Your task to perform on an android device: Open calendar and show me the second week of next month Image 0: 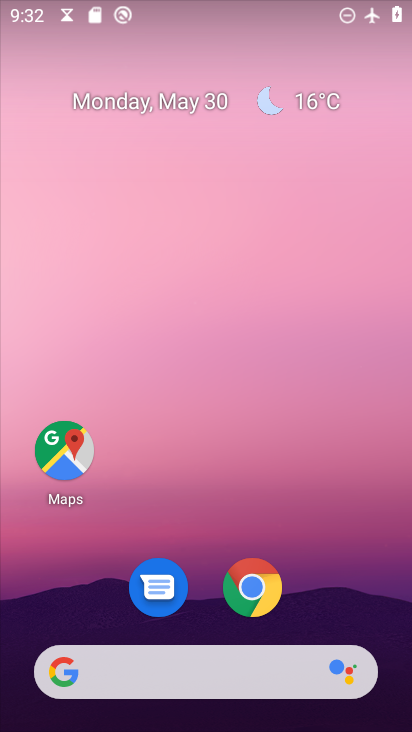
Step 0: drag from (155, 687) to (319, 164)
Your task to perform on an android device: Open calendar and show me the second week of next month Image 1: 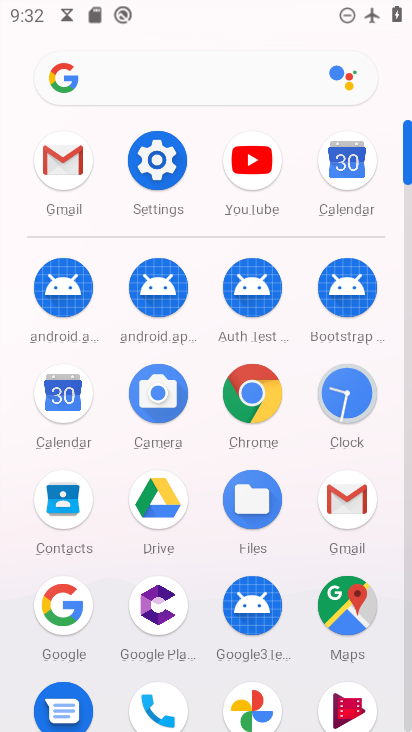
Step 1: click (68, 403)
Your task to perform on an android device: Open calendar and show me the second week of next month Image 2: 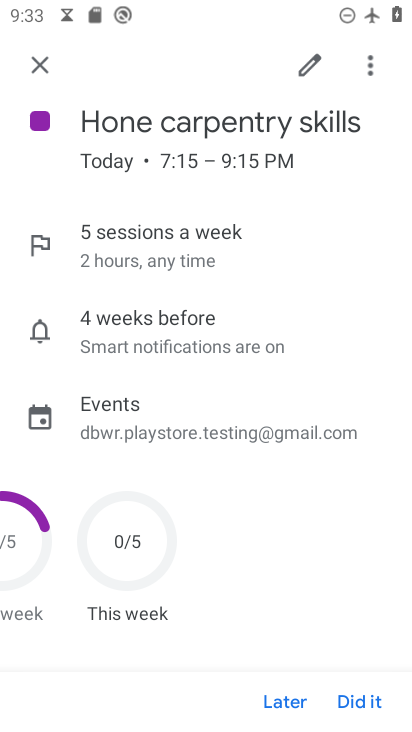
Step 2: click (37, 60)
Your task to perform on an android device: Open calendar and show me the second week of next month Image 3: 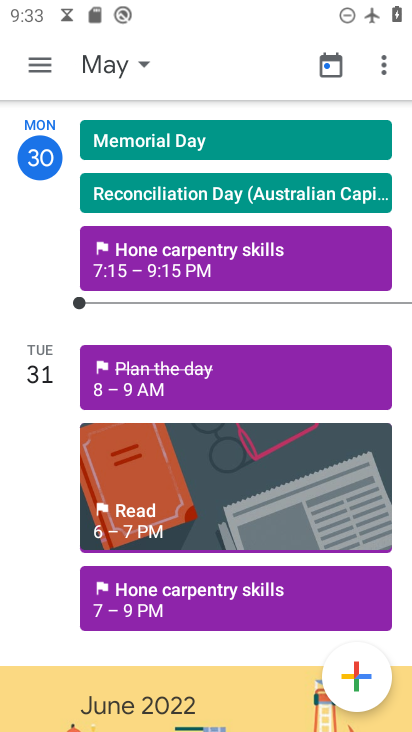
Step 3: click (126, 69)
Your task to perform on an android device: Open calendar and show me the second week of next month Image 4: 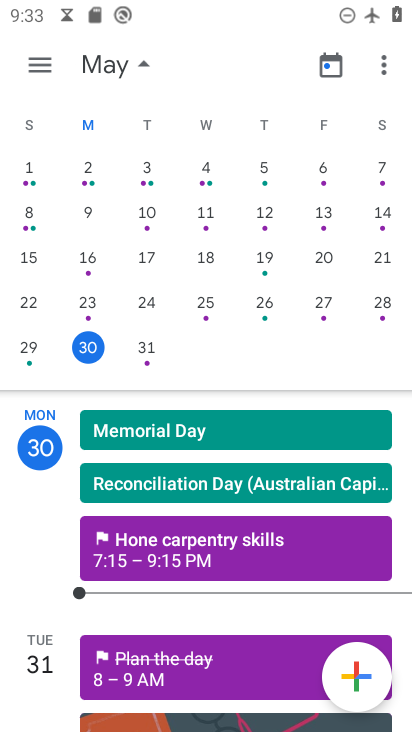
Step 4: drag from (367, 260) to (9, 204)
Your task to perform on an android device: Open calendar and show me the second week of next month Image 5: 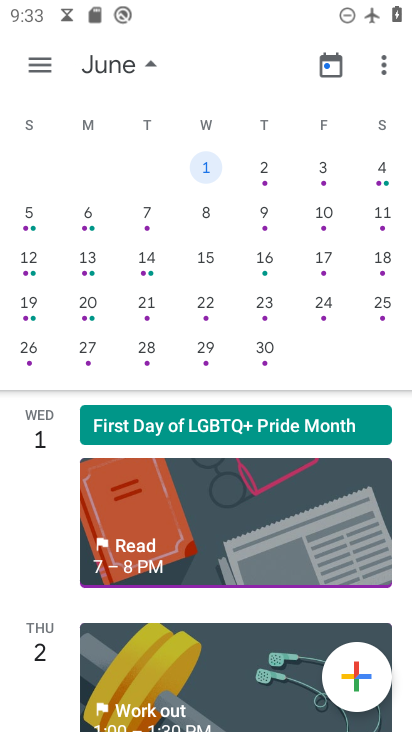
Step 5: click (29, 214)
Your task to perform on an android device: Open calendar and show me the second week of next month Image 6: 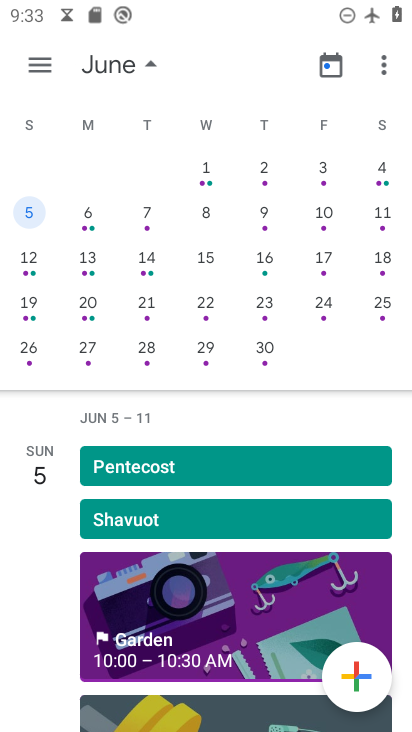
Step 6: click (41, 65)
Your task to perform on an android device: Open calendar and show me the second week of next month Image 7: 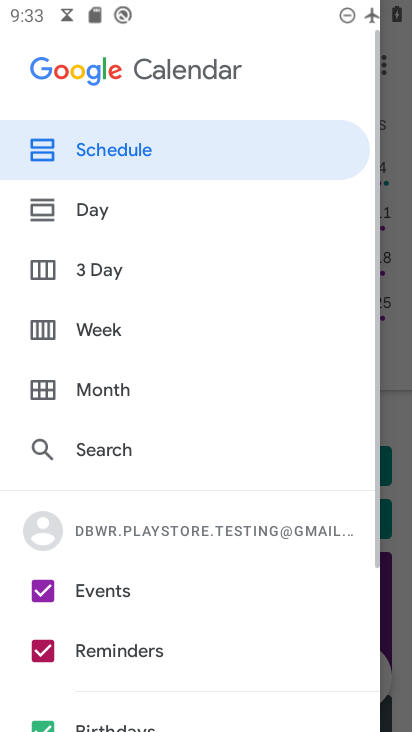
Step 7: click (116, 336)
Your task to perform on an android device: Open calendar and show me the second week of next month Image 8: 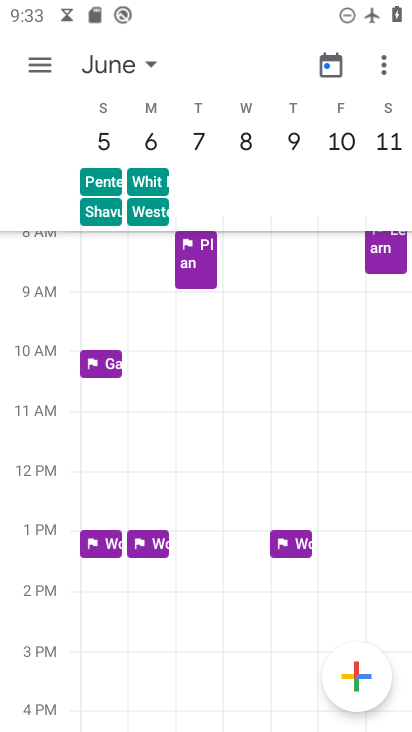
Step 8: task complete